Your task to perform on an android device: Open wifi settings Image 0: 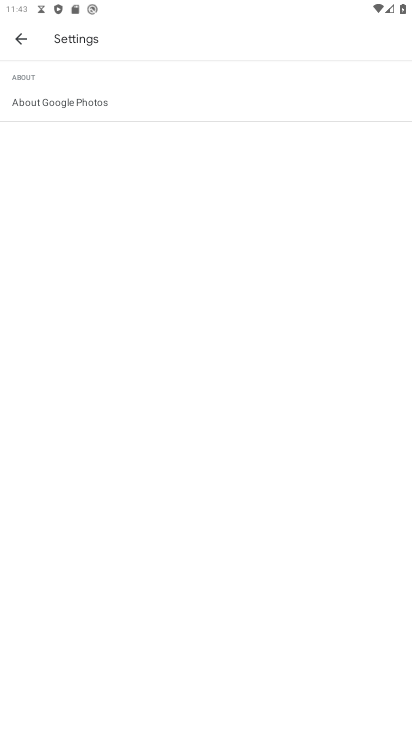
Step 0: press home button
Your task to perform on an android device: Open wifi settings Image 1: 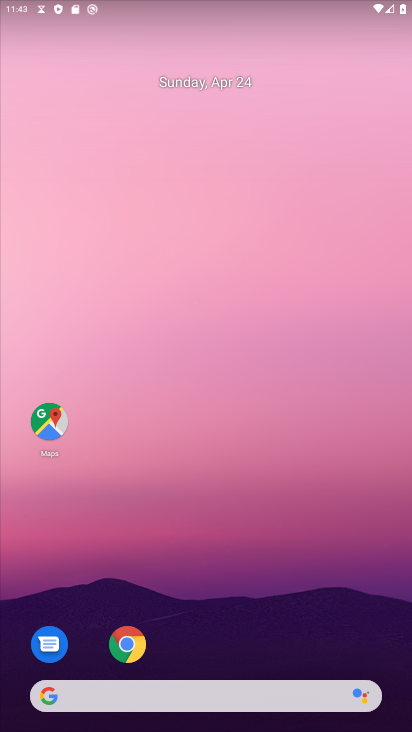
Step 1: drag from (346, 586) to (337, 71)
Your task to perform on an android device: Open wifi settings Image 2: 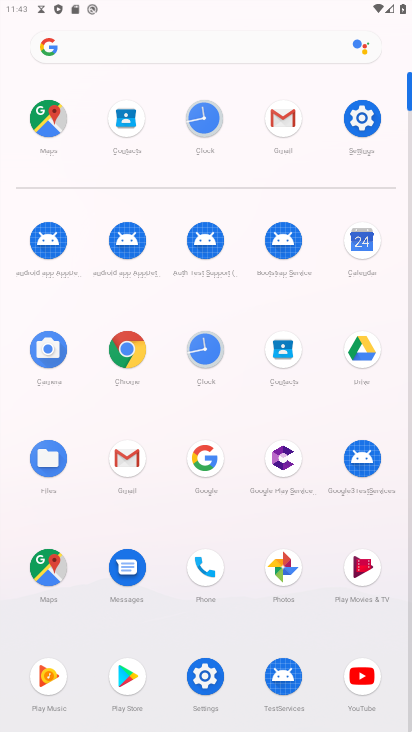
Step 2: click (362, 117)
Your task to perform on an android device: Open wifi settings Image 3: 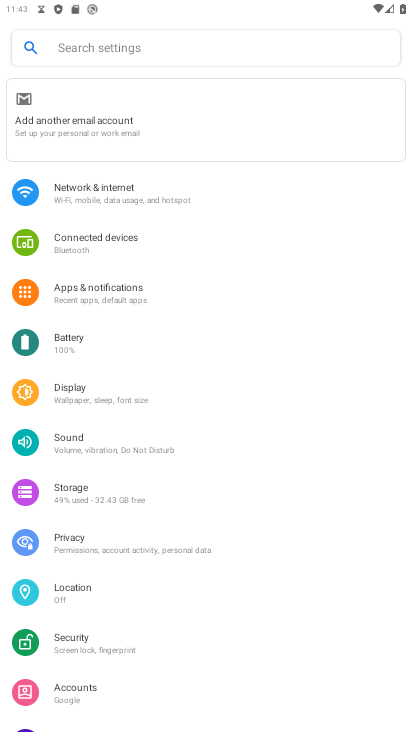
Step 3: click (77, 206)
Your task to perform on an android device: Open wifi settings Image 4: 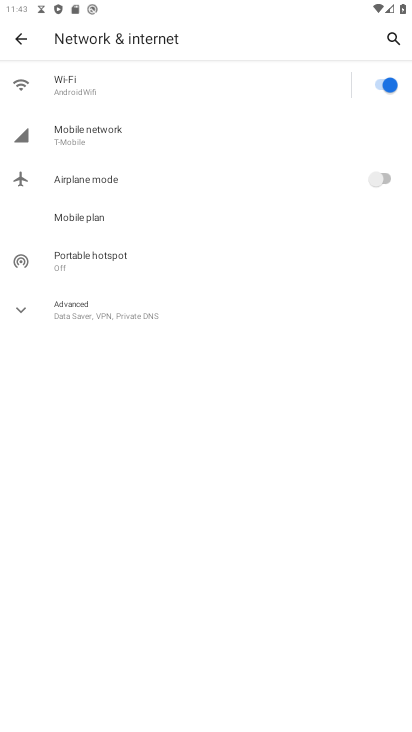
Step 4: click (64, 92)
Your task to perform on an android device: Open wifi settings Image 5: 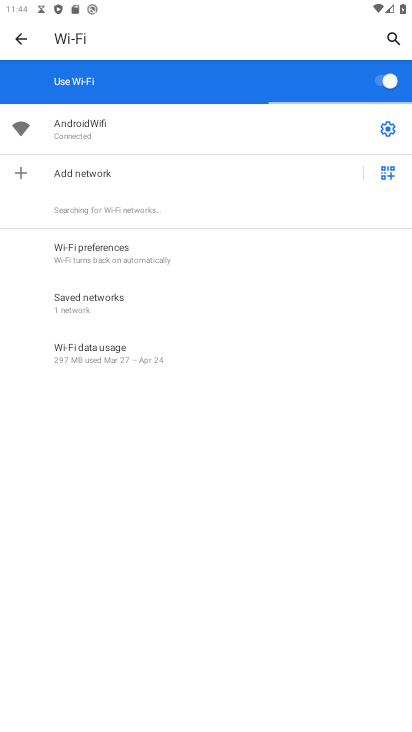
Step 5: task complete